Your task to perform on an android device: turn off airplane mode Image 0: 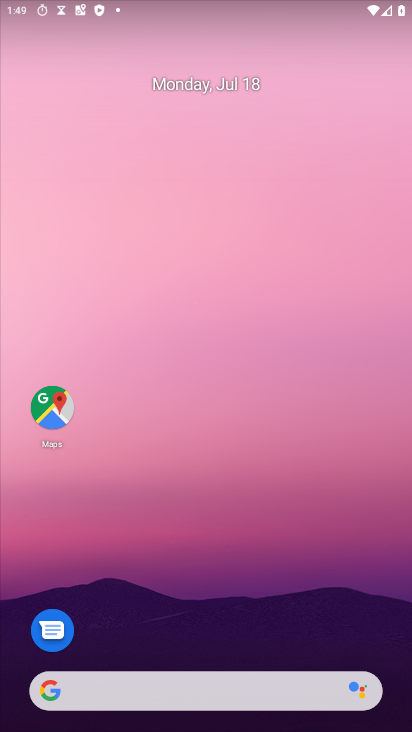
Step 0: drag from (164, 694) to (126, 3)
Your task to perform on an android device: turn off airplane mode Image 1: 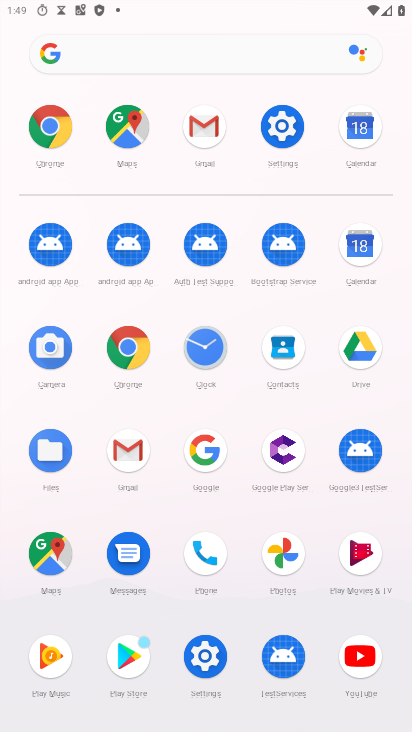
Step 1: click (288, 118)
Your task to perform on an android device: turn off airplane mode Image 2: 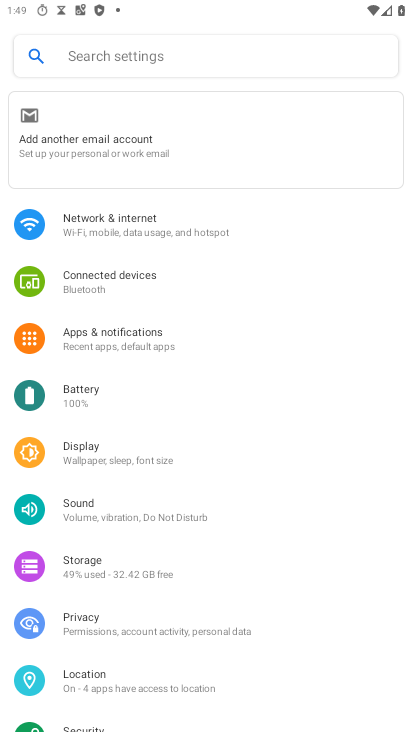
Step 2: click (189, 223)
Your task to perform on an android device: turn off airplane mode Image 3: 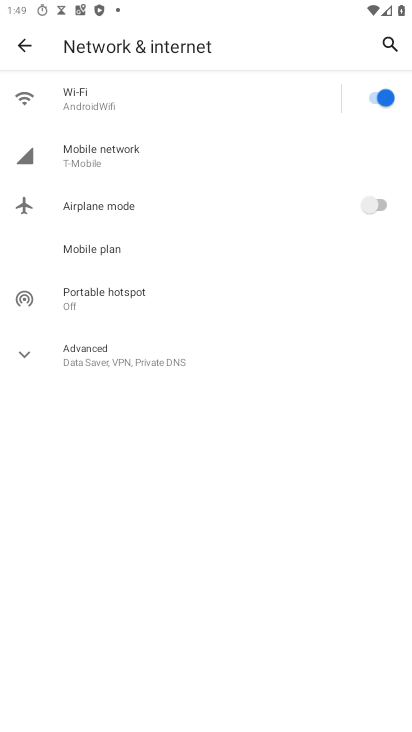
Step 3: task complete